Your task to perform on an android device: turn on bluetooth scan Image 0: 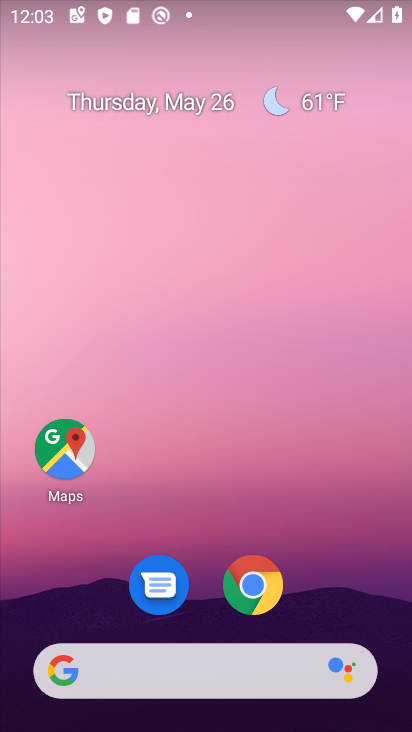
Step 0: drag from (217, 489) to (261, 29)
Your task to perform on an android device: turn on bluetooth scan Image 1: 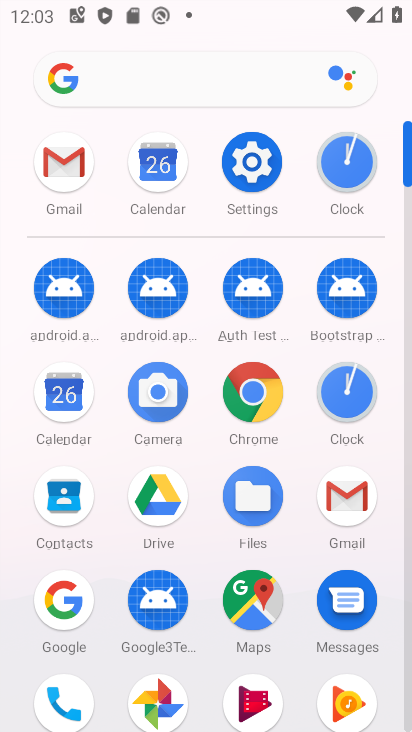
Step 1: click (246, 170)
Your task to perform on an android device: turn on bluetooth scan Image 2: 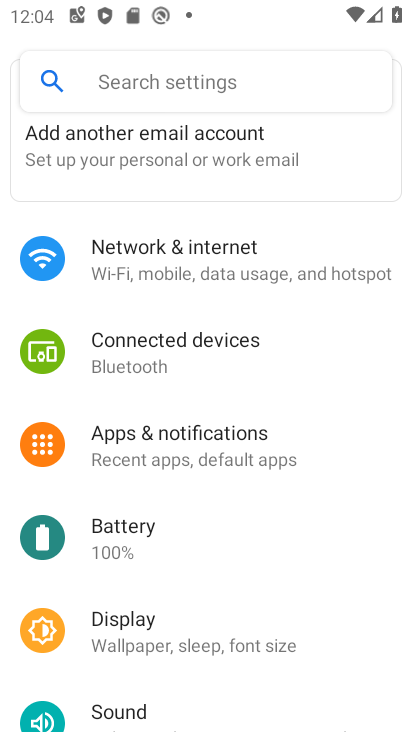
Step 2: drag from (214, 545) to (267, 133)
Your task to perform on an android device: turn on bluetooth scan Image 3: 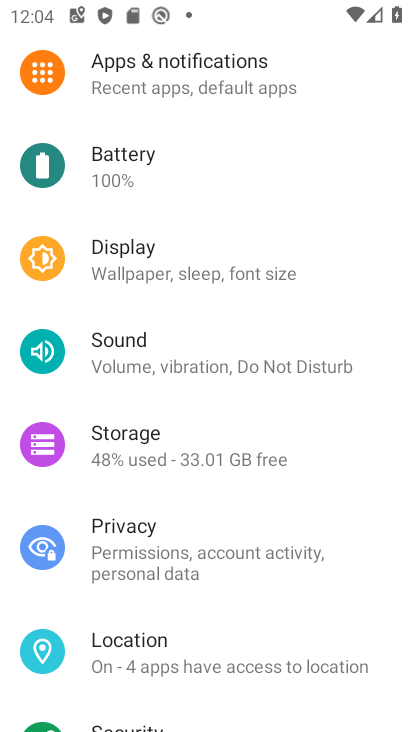
Step 3: drag from (239, 501) to (271, 167)
Your task to perform on an android device: turn on bluetooth scan Image 4: 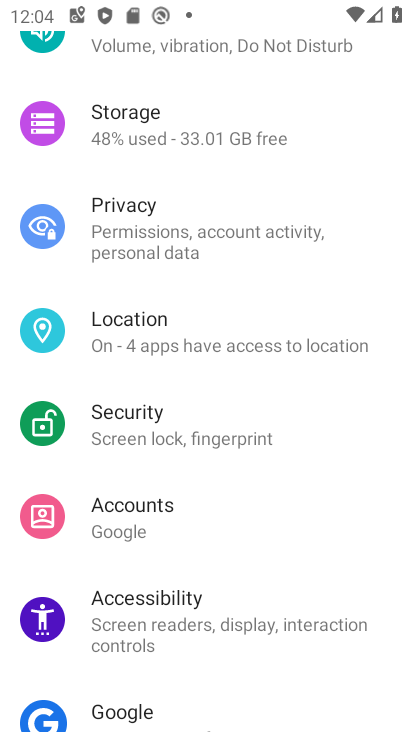
Step 4: click (213, 327)
Your task to perform on an android device: turn on bluetooth scan Image 5: 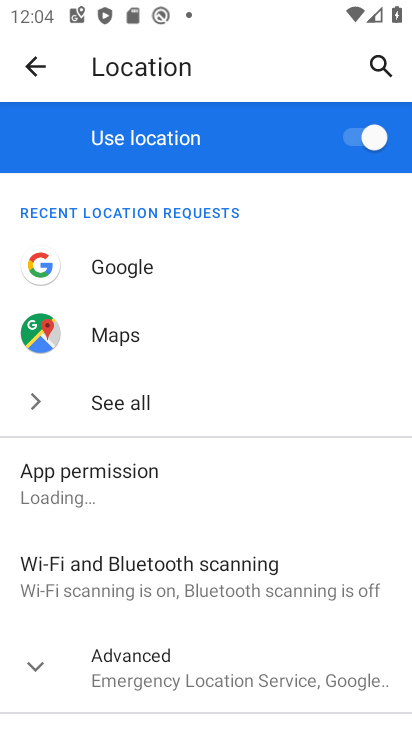
Step 5: click (203, 568)
Your task to perform on an android device: turn on bluetooth scan Image 6: 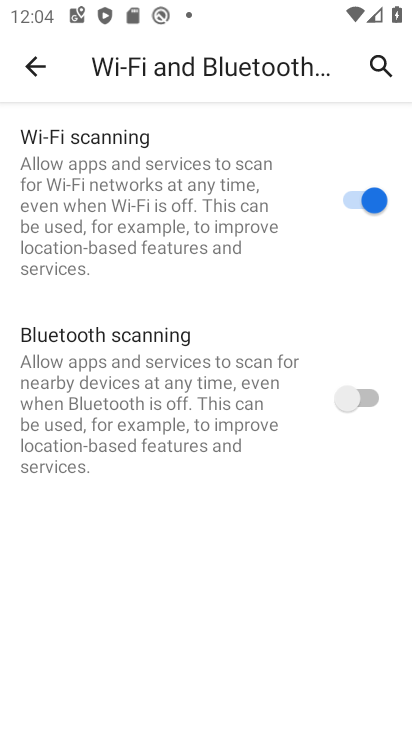
Step 6: click (361, 389)
Your task to perform on an android device: turn on bluetooth scan Image 7: 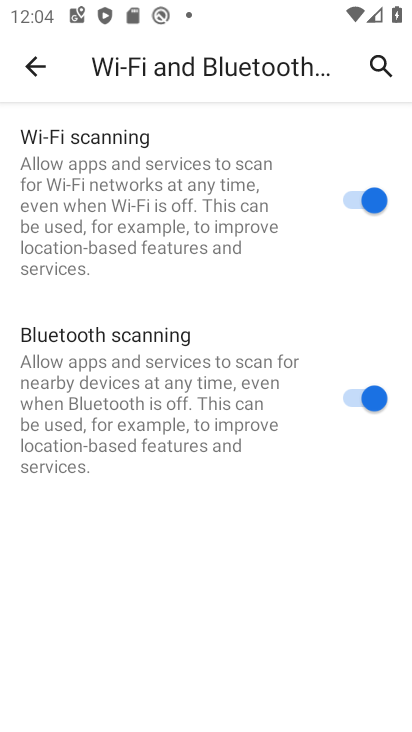
Step 7: task complete